Your task to perform on an android device: What's on my calendar tomorrow? Image 0: 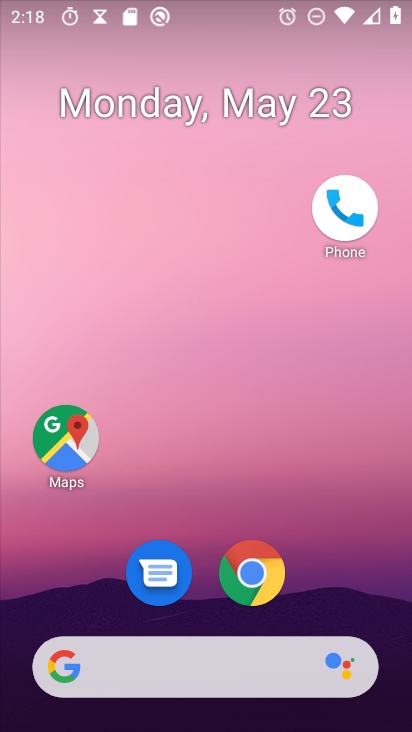
Step 0: press home button
Your task to perform on an android device: What's on my calendar tomorrow? Image 1: 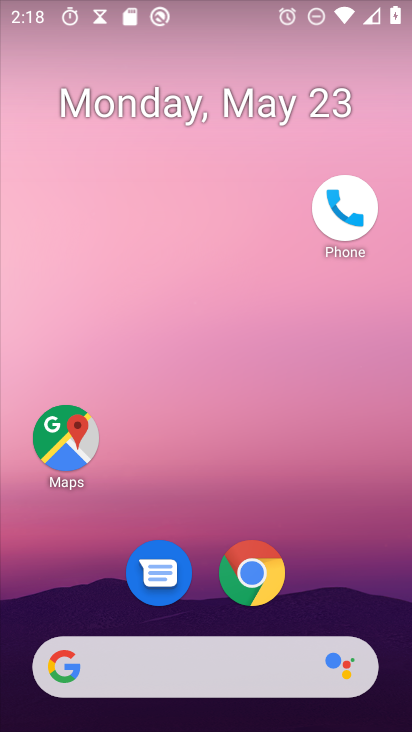
Step 1: drag from (131, 669) to (289, 140)
Your task to perform on an android device: What's on my calendar tomorrow? Image 2: 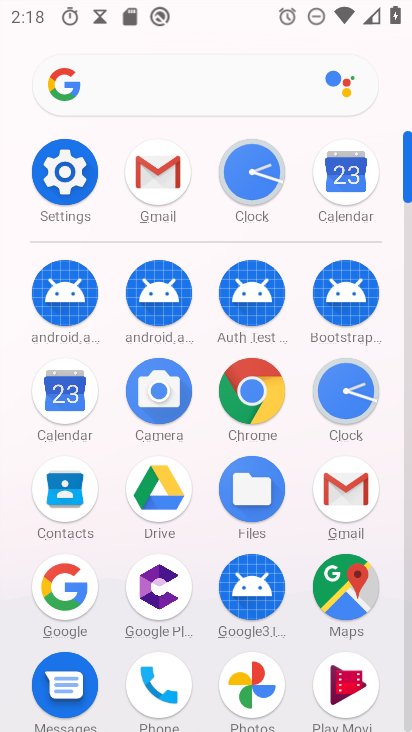
Step 2: click (62, 404)
Your task to perform on an android device: What's on my calendar tomorrow? Image 3: 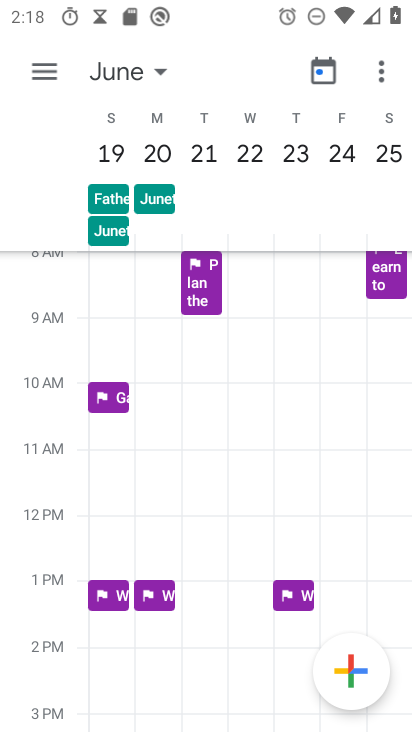
Step 3: click (126, 70)
Your task to perform on an android device: What's on my calendar tomorrow? Image 4: 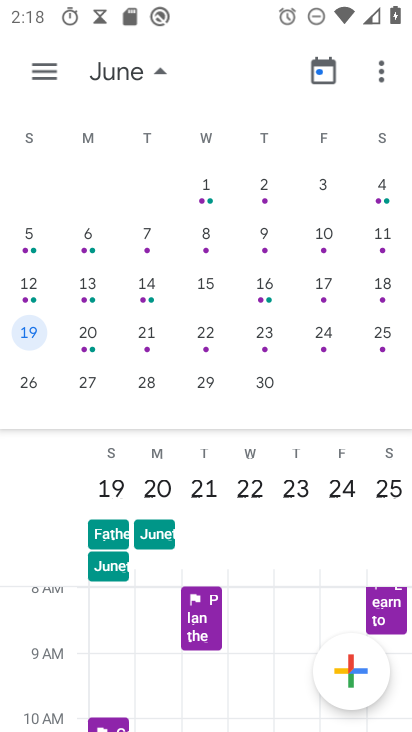
Step 4: drag from (90, 298) to (401, 248)
Your task to perform on an android device: What's on my calendar tomorrow? Image 5: 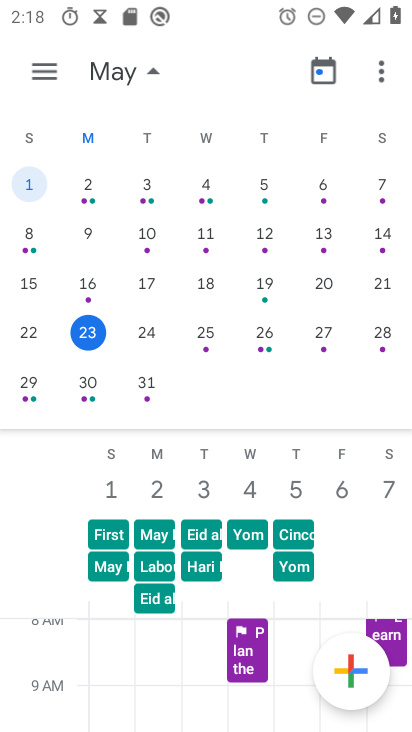
Step 5: click (155, 336)
Your task to perform on an android device: What's on my calendar tomorrow? Image 6: 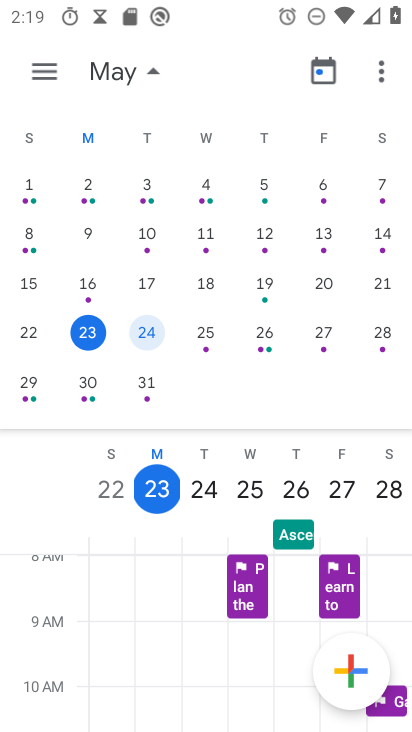
Step 6: click (50, 74)
Your task to perform on an android device: What's on my calendar tomorrow? Image 7: 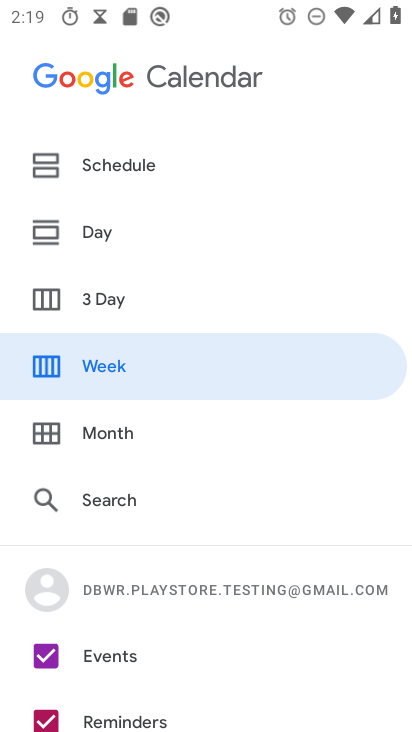
Step 7: click (98, 239)
Your task to perform on an android device: What's on my calendar tomorrow? Image 8: 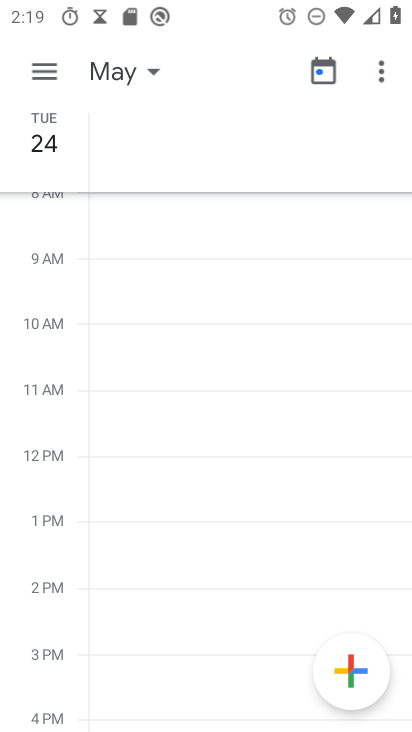
Step 8: click (48, 70)
Your task to perform on an android device: What's on my calendar tomorrow? Image 9: 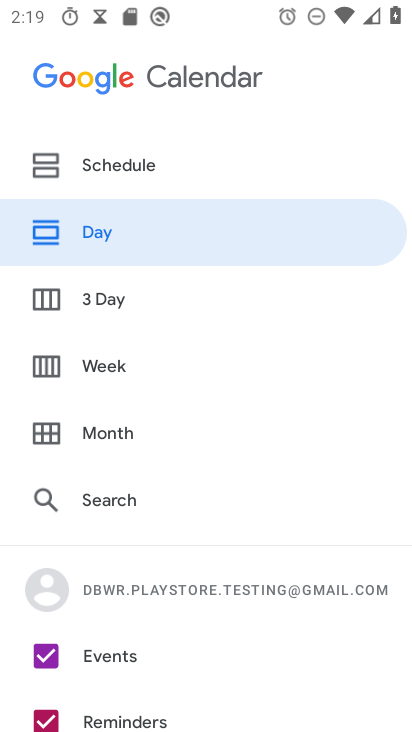
Step 9: click (118, 168)
Your task to perform on an android device: What's on my calendar tomorrow? Image 10: 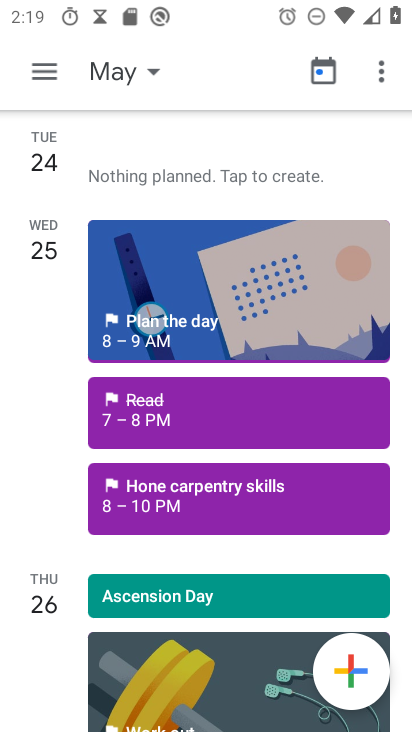
Step 10: task complete